Your task to perform on an android device: open the mobile data screen to see how much data has been used Image 0: 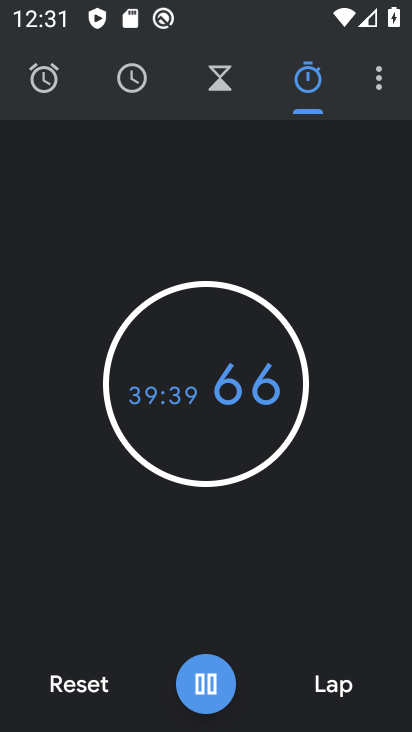
Step 0: press home button
Your task to perform on an android device: open the mobile data screen to see how much data has been used Image 1: 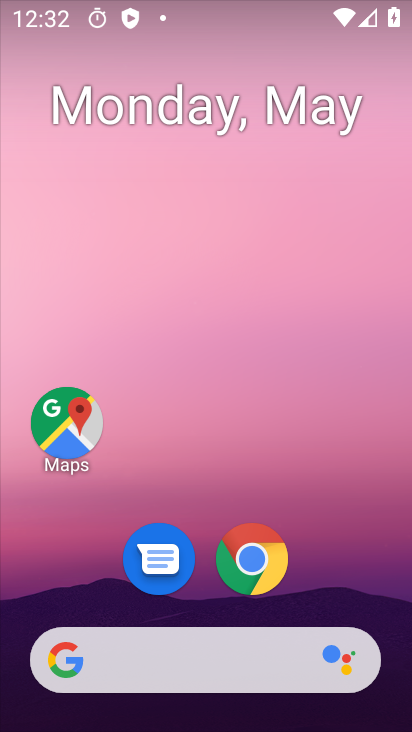
Step 1: drag from (282, 557) to (314, 51)
Your task to perform on an android device: open the mobile data screen to see how much data has been used Image 2: 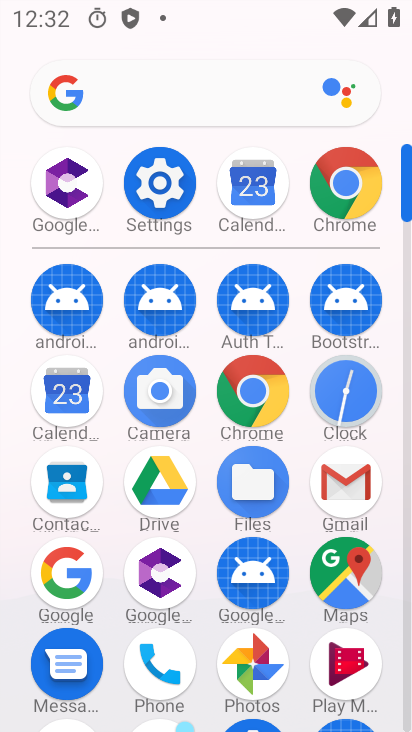
Step 2: click (161, 183)
Your task to perform on an android device: open the mobile data screen to see how much data has been used Image 3: 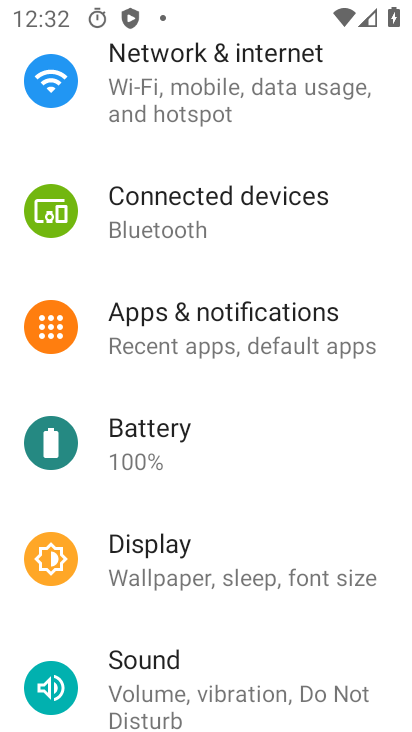
Step 3: click (221, 95)
Your task to perform on an android device: open the mobile data screen to see how much data has been used Image 4: 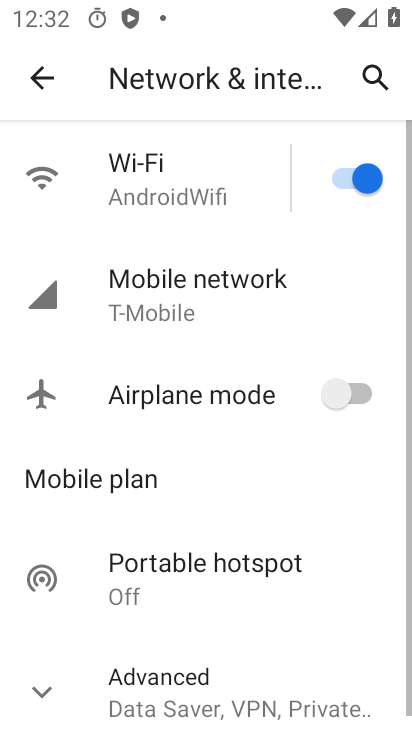
Step 4: click (222, 303)
Your task to perform on an android device: open the mobile data screen to see how much data has been used Image 5: 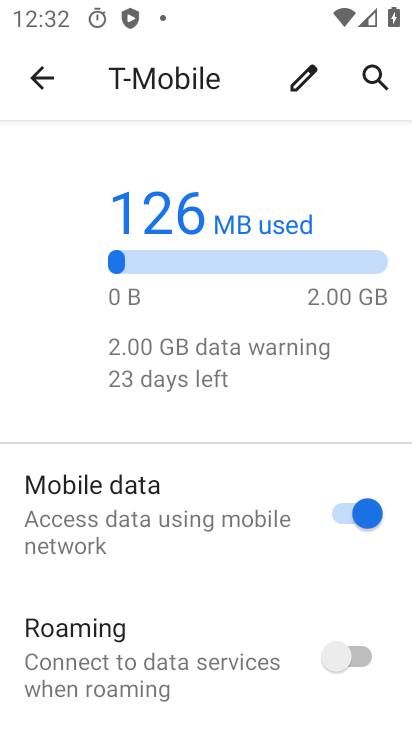
Step 5: task complete